Your task to perform on an android device: turn off notifications settings in the gmail app Image 0: 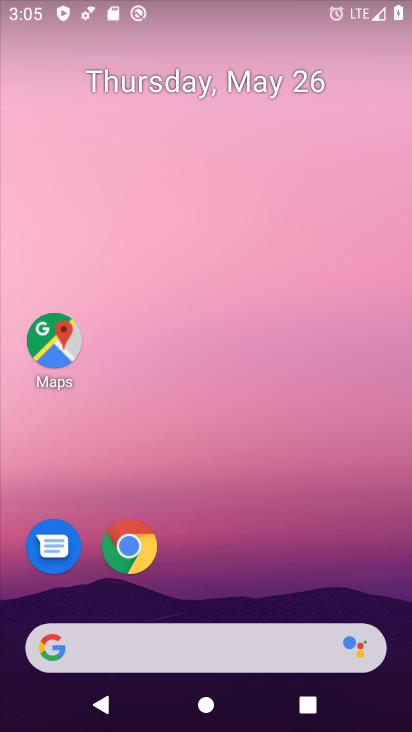
Step 0: drag from (252, 458) to (303, 59)
Your task to perform on an android device: turn off notifications settings in the gmail app Image 1: 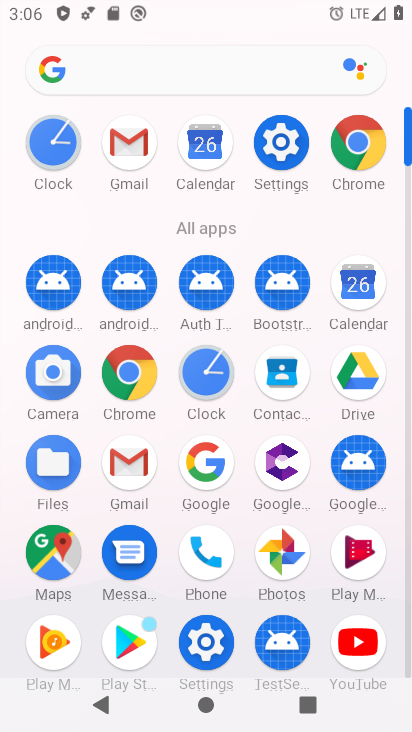
Step 1: click (117, 144)
Your task to perform on an android device: turn off notifications settings in the gmail app Image 2: 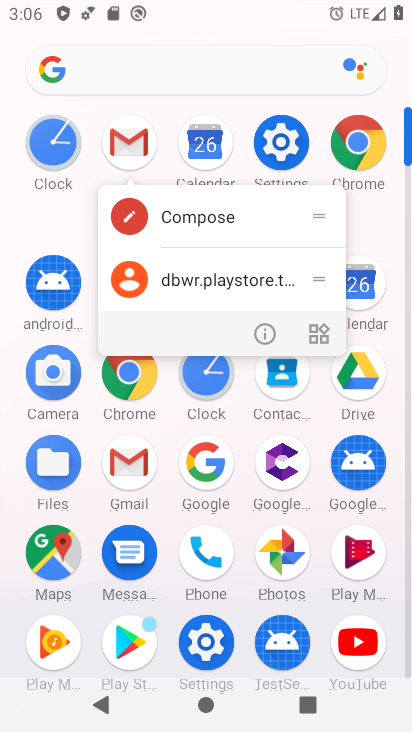
Step 2: click (257, 334)
Your task to perform on an android device: turn off notifications settings in the gmail app Image 3: 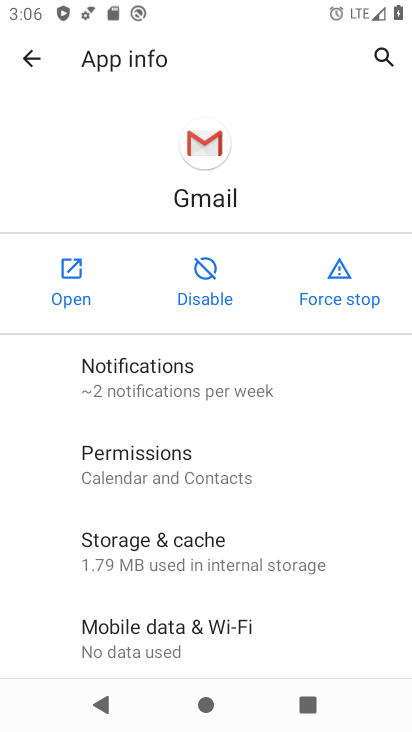
Step 3: click (201, 363)
Your task to perform on an android device: turn off notifications settings in the gmail app Image 4: 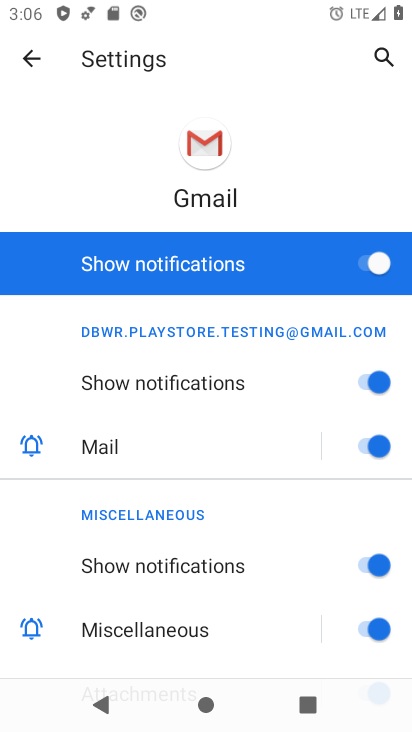
Step 4: click (375, 258)
Your task to perform on an android device: turn off notifications settings in the gmail app Image 5: 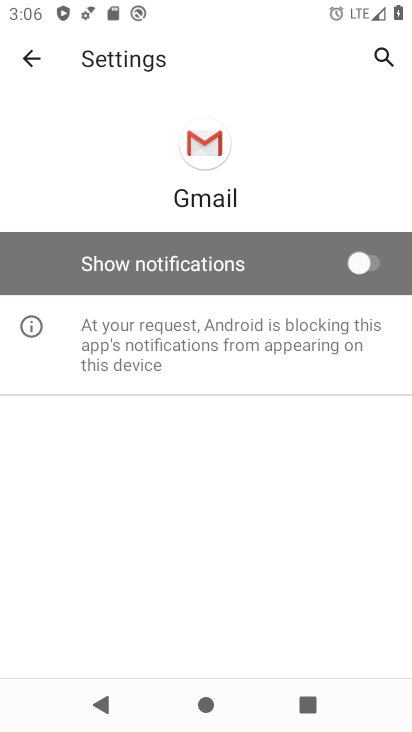
Step 5: task complete